Your task to perform on an android device: What's on my calendar today? Image 0: 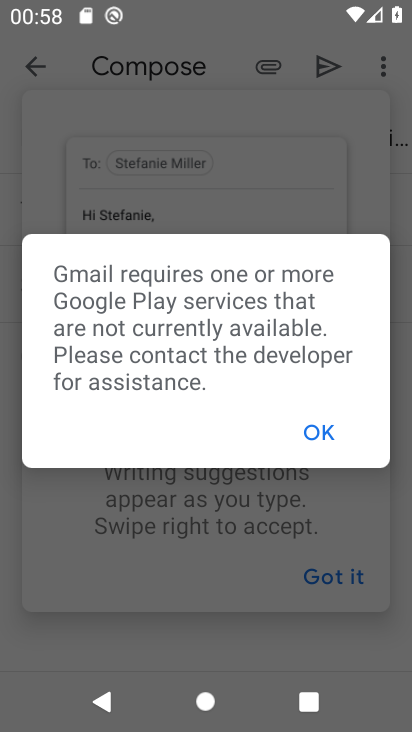
Step 0: press home button
Your task to perform on an android device: What's on my calendar today? Image 1: 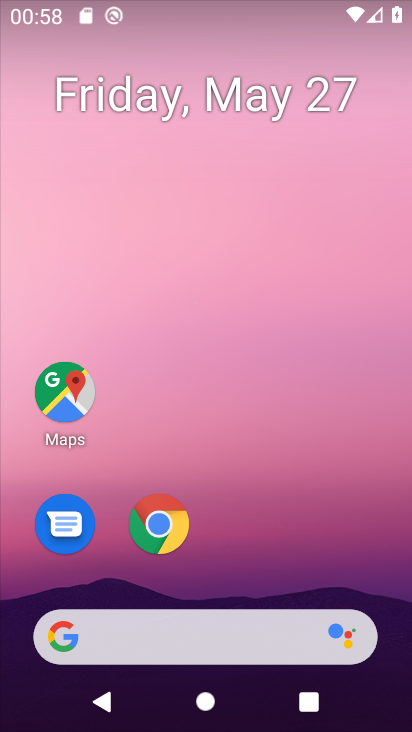
Step 1: drag from (250, 499) to (255, 42)
Your task to perform on an android device: What's on my calendar today? Image 2: 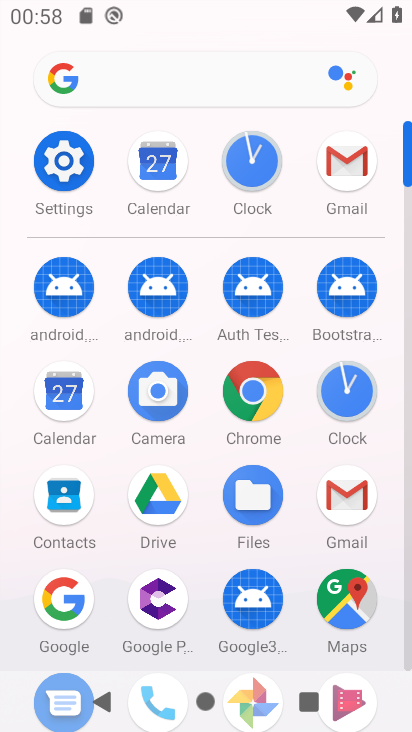
Step 2: click (163, 170)
Your task to perform on an android device: What's on my calendar today? Image 3: 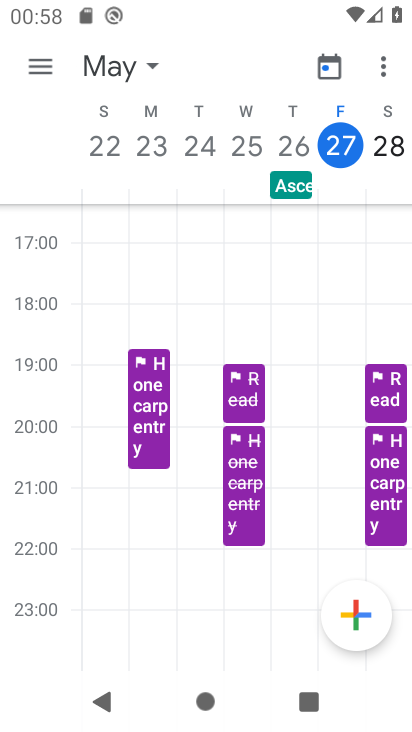
Step 3: click (339, 142)
Your task to perform on an android device: What's on my calendar today? Image 4: 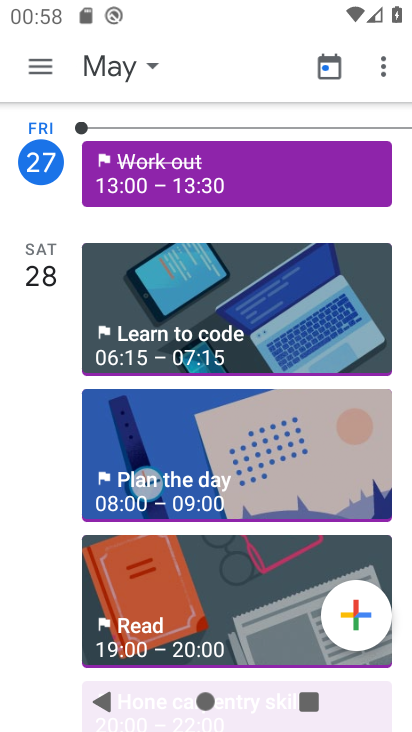
Step 4: task complete